Your task to perform on an android device: Open network settings Image 0: 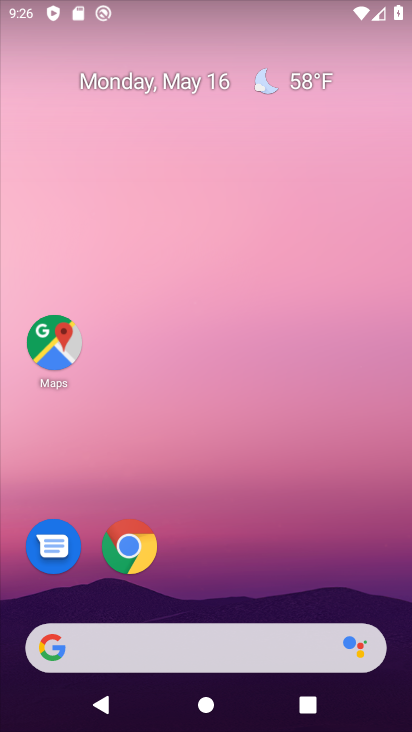
Step 0: drag from (280, 553) to (223, 114)
Your task to perform on an android device: Open network settings Image 1: 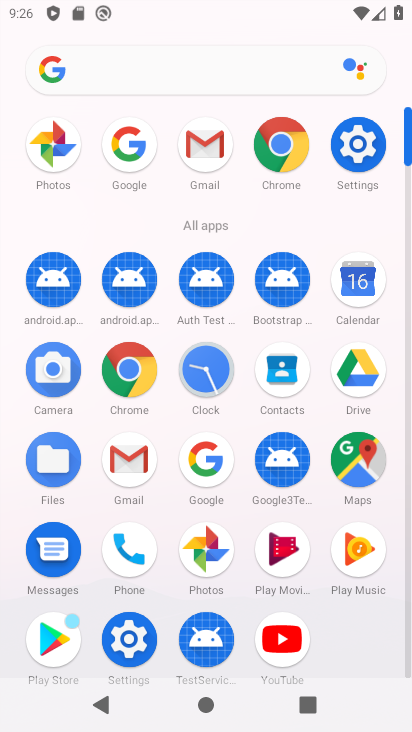
Step 1: click (356, 146)
Your task to perform on an android device: Open network settings Image 2: 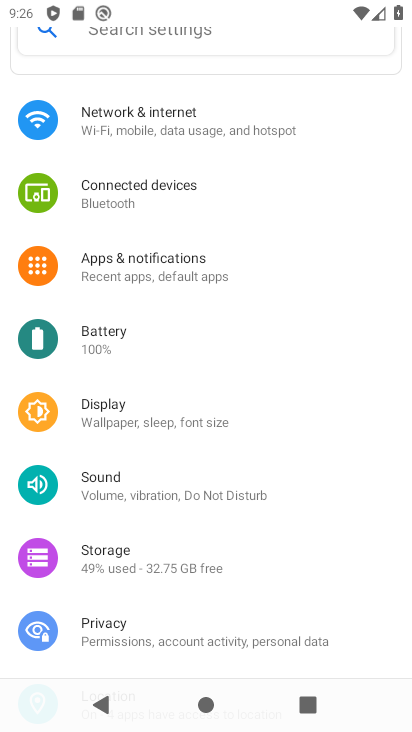
Step 2: click (170, 131)
Your task to perform on an android device: Open network settings Image 3: 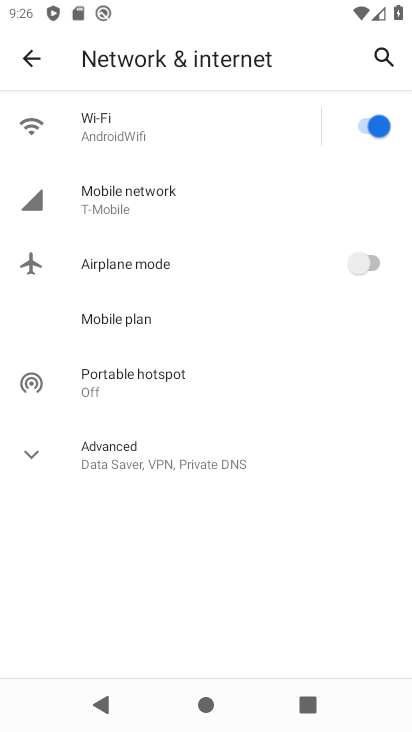
Step 3: click (108, 208)
Your task to perform on an android device: Open network settings Image 4: 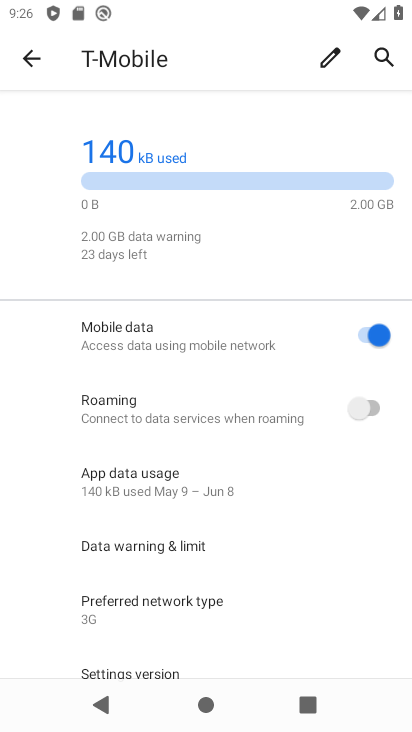
Step 4: task complete